Your task to perform on an android device: change the clock display to analog Image 0: 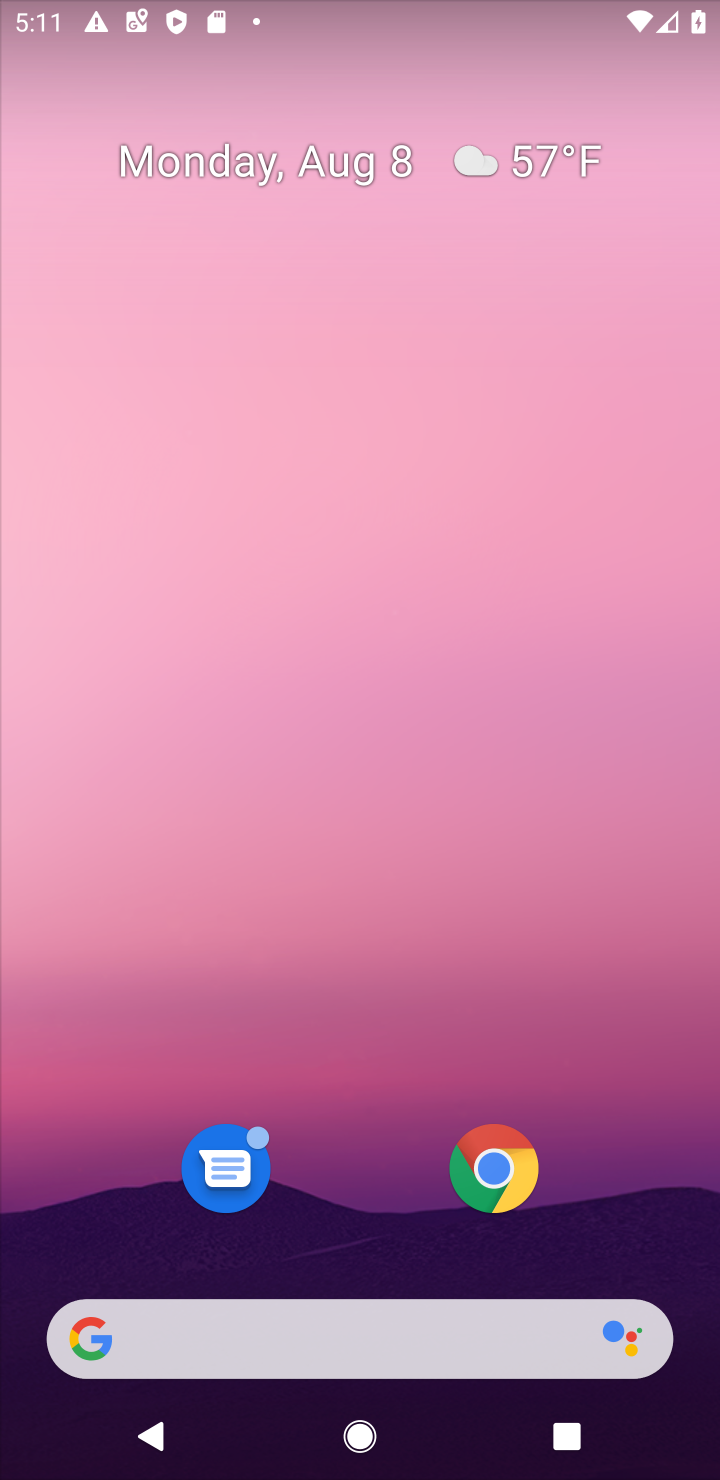
Step 0: drag from (407, 1351) to (467, 423)
Your task to perform on an android device: change the clock display to analog Image 1: 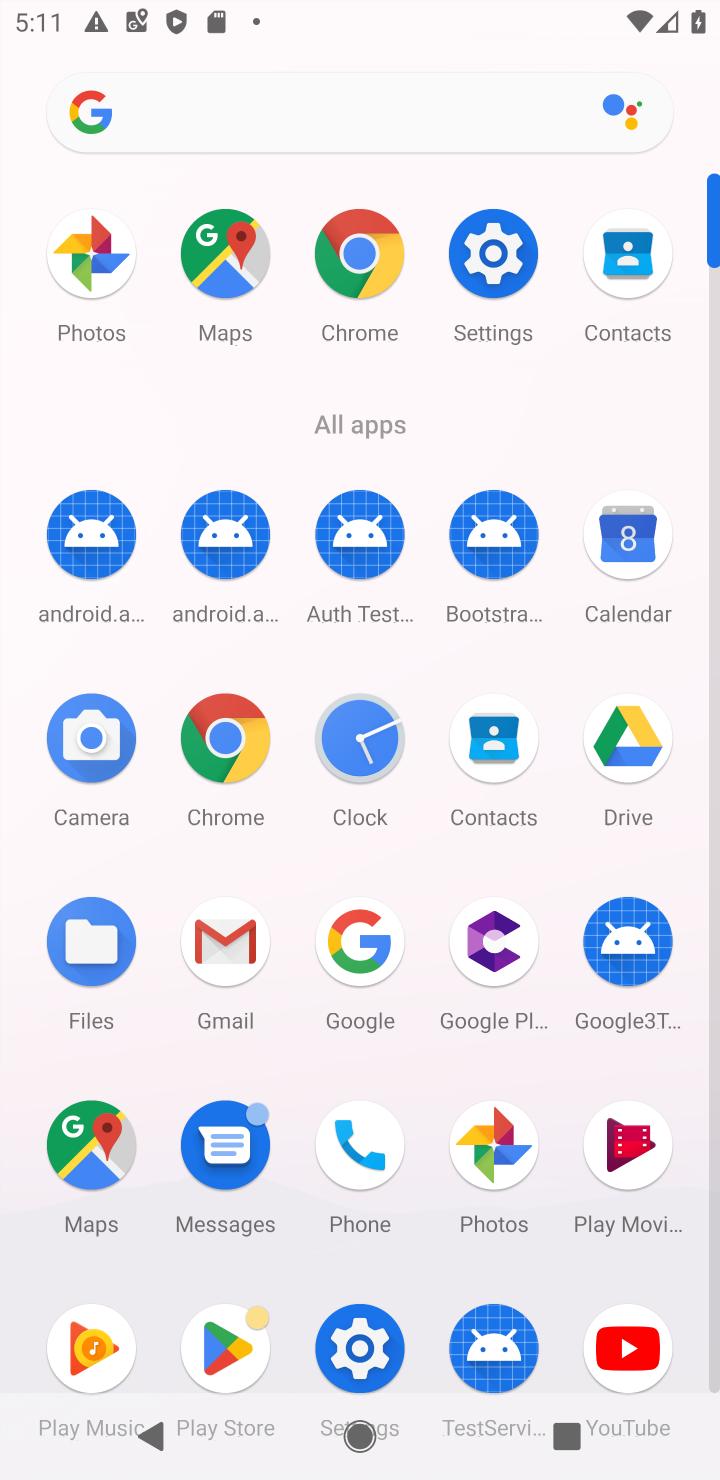
Step 1: click (303, 745)
Your task to perform on an android device: change the clock display to analog Image 2: 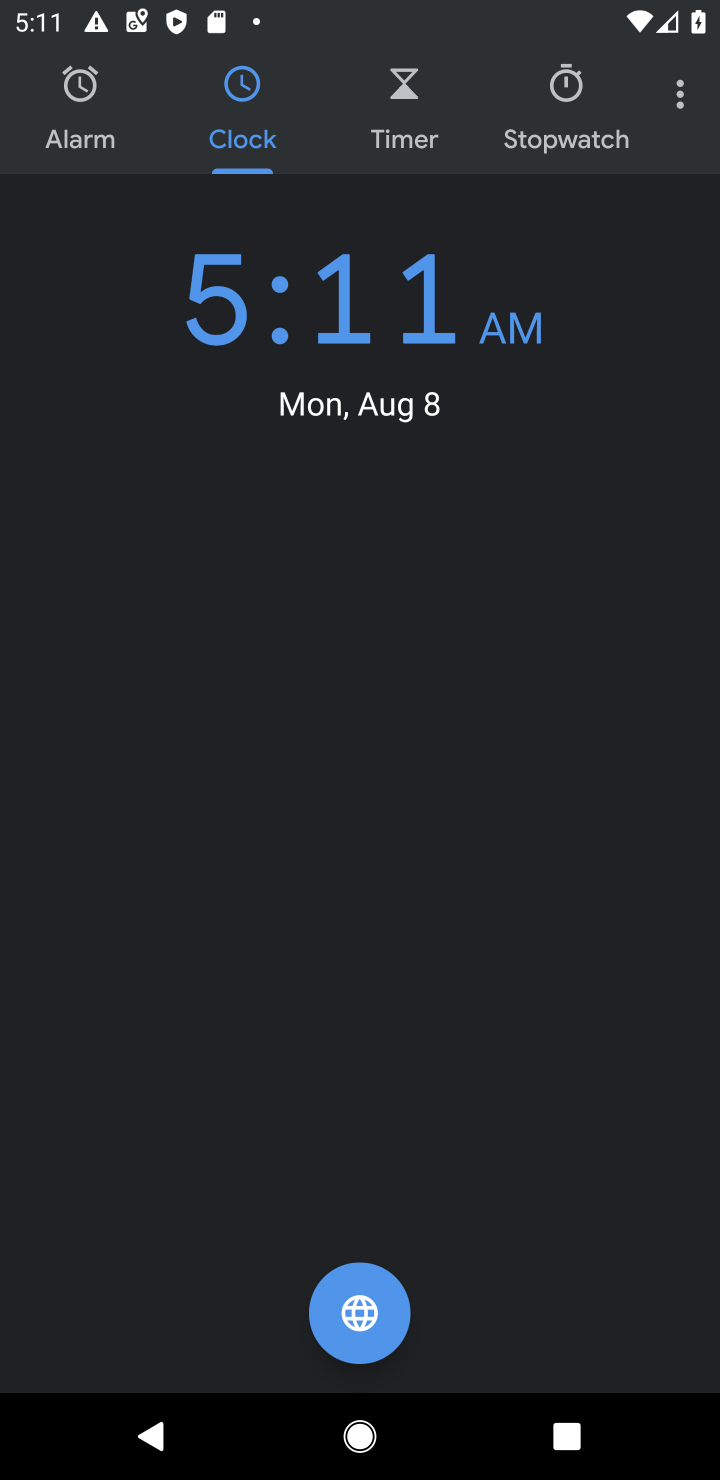
Step 2: click (676, 108)
Your task to perform on an android device: change the clock display to analog Image 3: 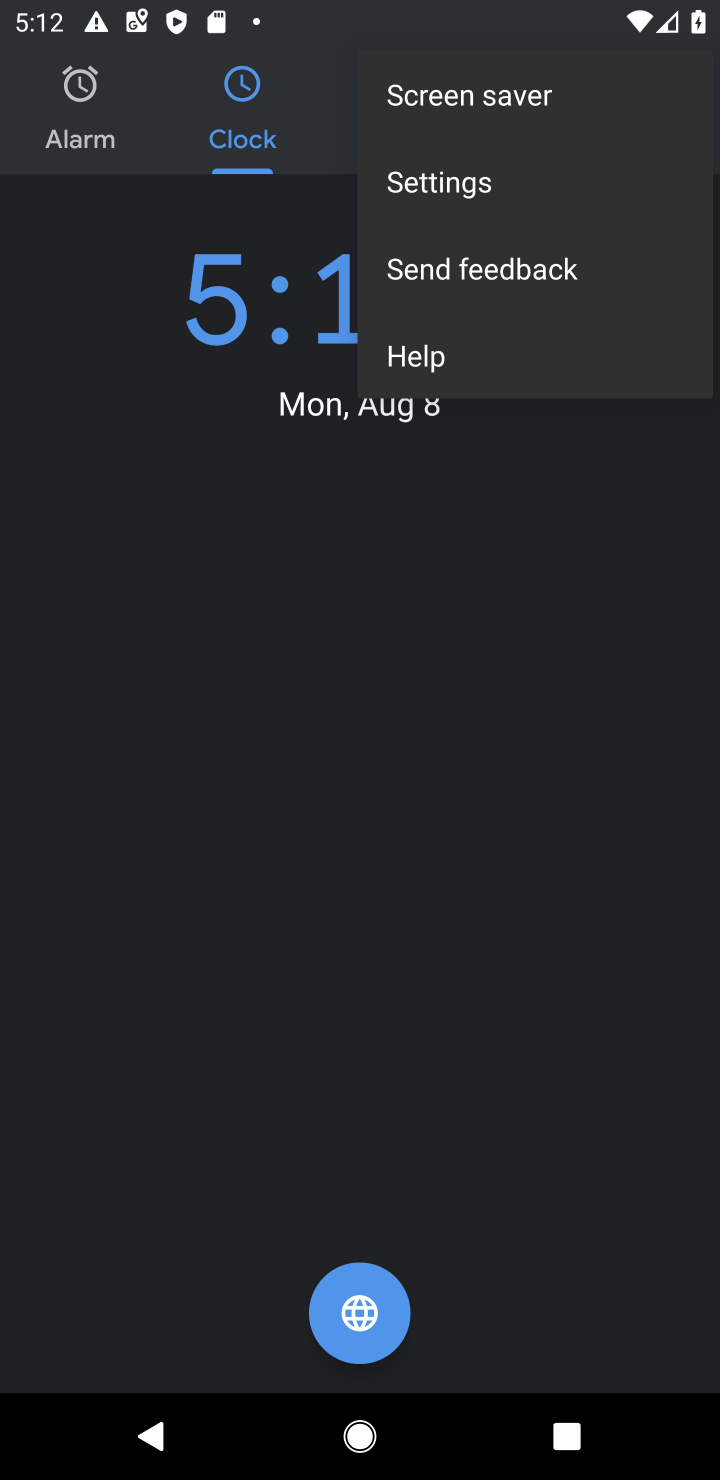
Step 3: click (471, 181)
Your task to perform on an android device: change the clock display to analog Image 4: 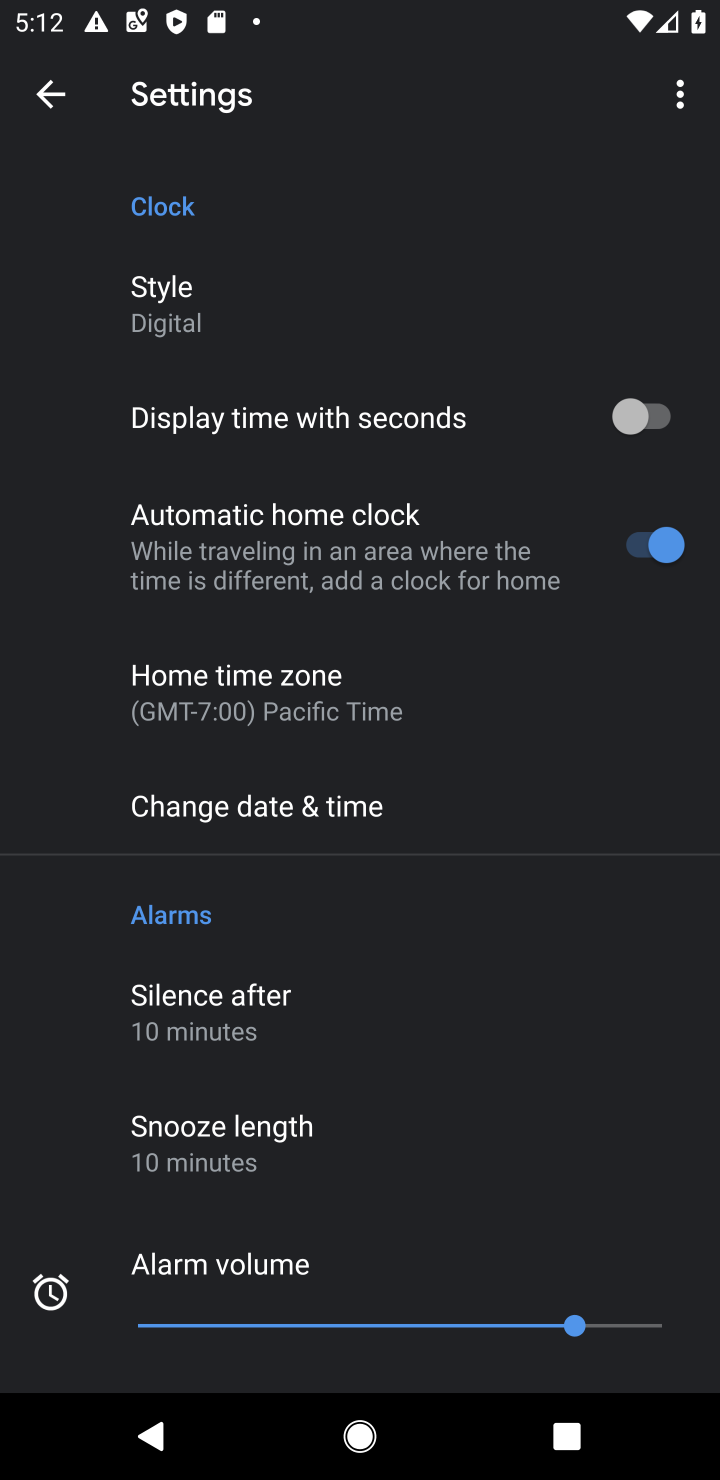
Step 4: click (220, 284)
Your task to perform on an android device: change the clock display to analog Image 5: 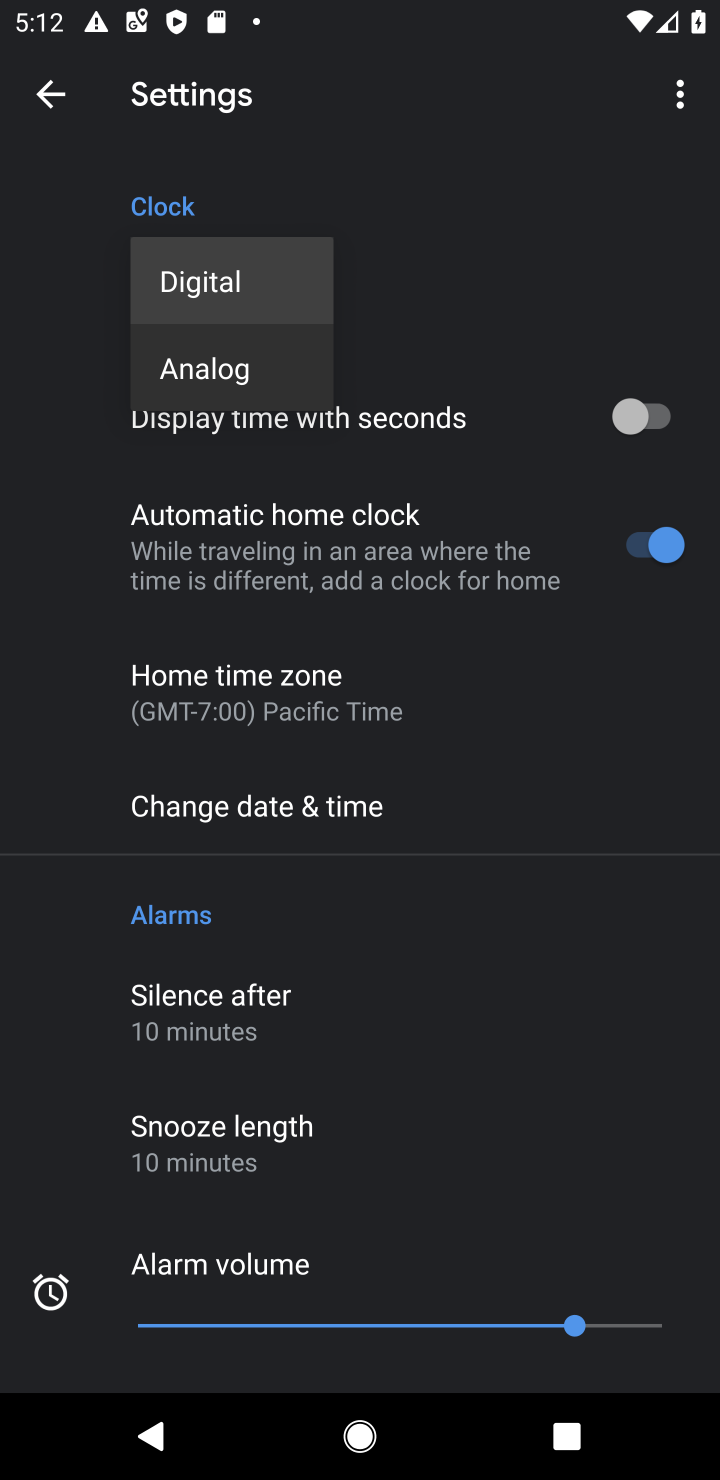
Step 5: click (276, 390)
Your task to perform on an android device: change the clock display to analog Image 6: 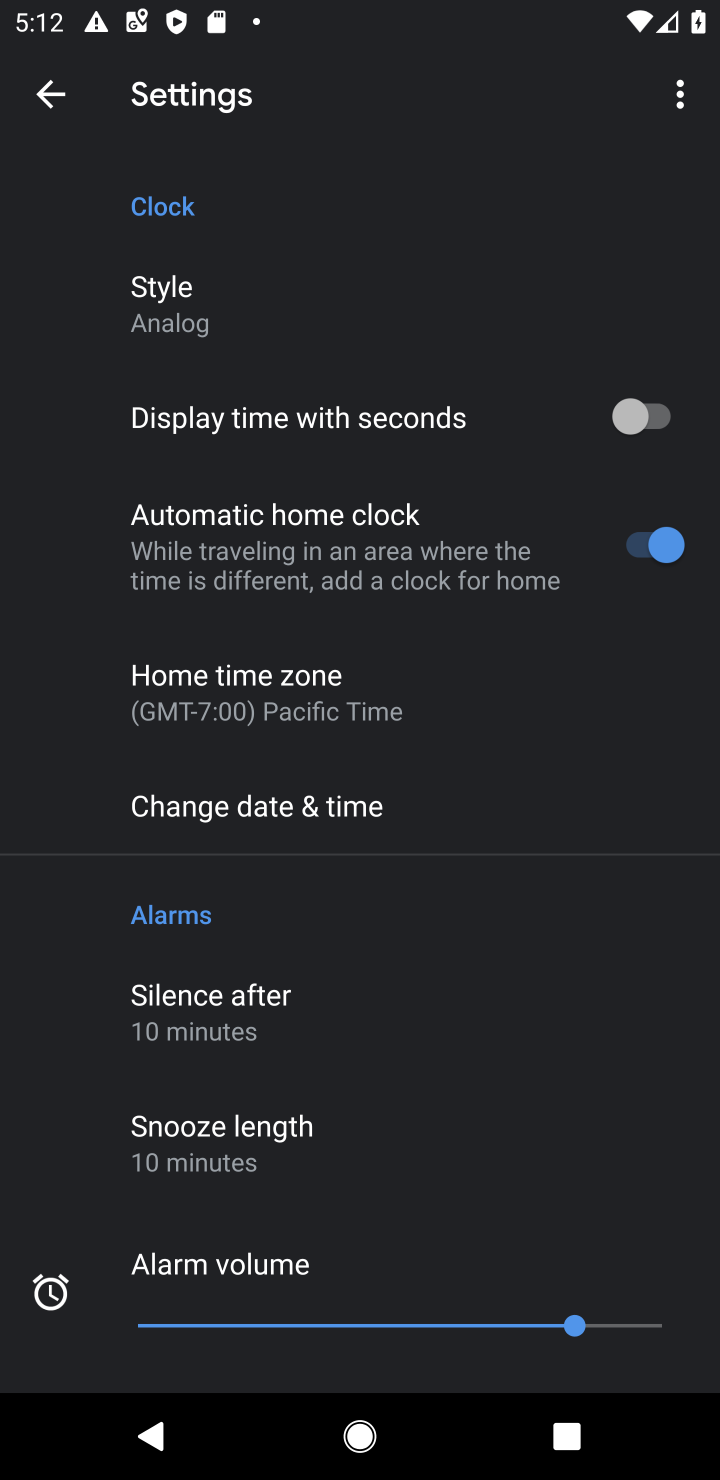
Step 6: task complete